Your task to perform on an android device: make emails show in primary in the gmail app Image 0: 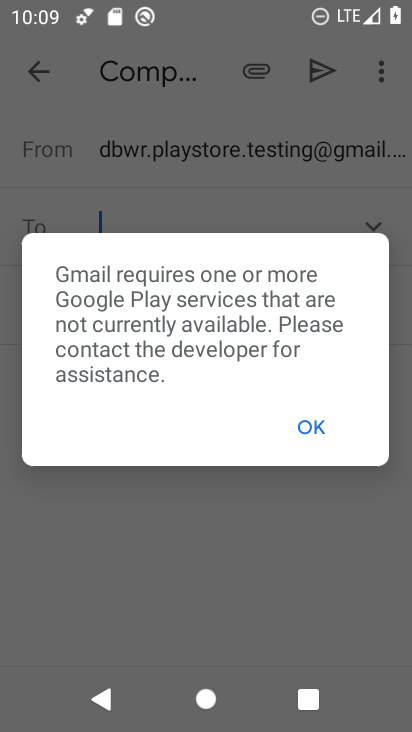
Step 0: press home button
Your task to perform on an android device: make emails show in primary in the gmail app Image 1: 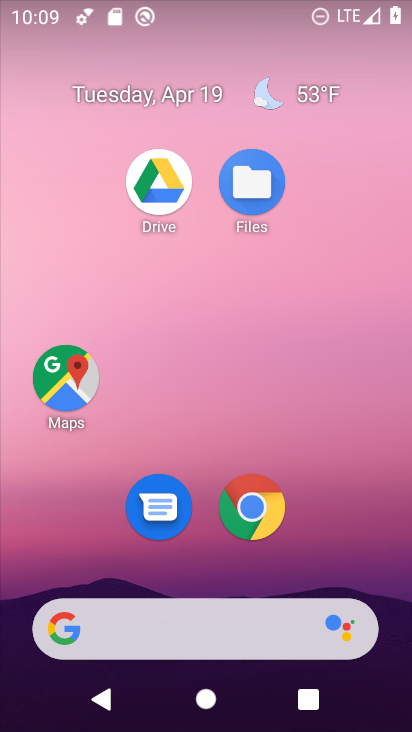
Step 1: drag from (342, 532) to (378, 156)
Your task to perform on an android device: make emails show in primary in the gmail app Image 2: 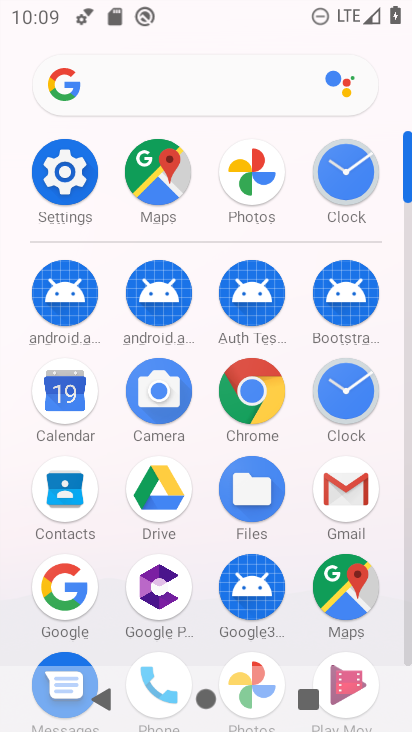
Step 2: click (330, 493)
Your task to perform on an android device: make emails show in primary in the gmail app Image 3: 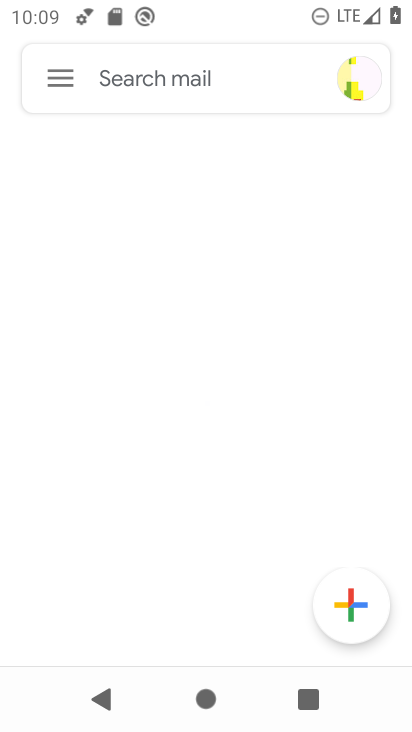
Step 3: click (59, 74)
Your task to perform on an android device: make emails show in primary in the gmail app Image 4: 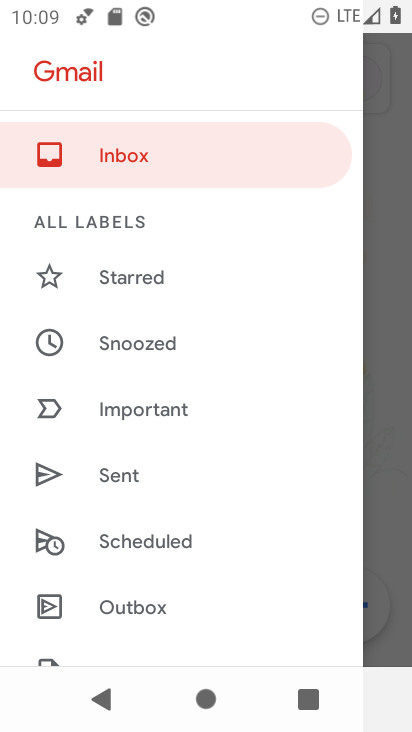
Step 4: drag from (157, 564) to (210, 164)
Your task to perform on an android device: make emails show in primary in the gmail app Image 5: 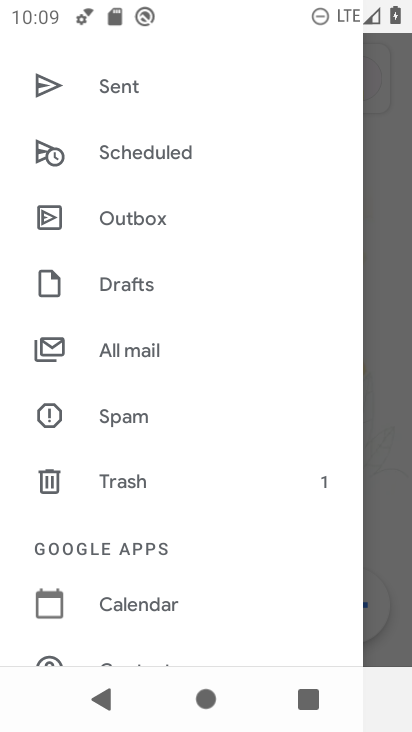
Step 5: drag from (217, 530) to (214, 176)
Your task to perform on an android device: make emails show in primary in the gmail app Image 6: 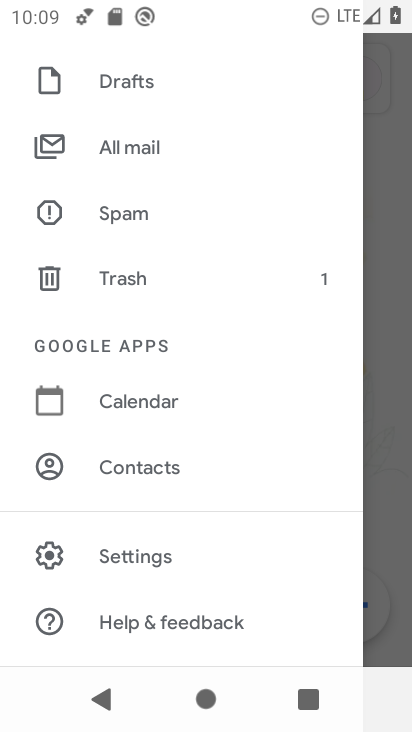
Step 6: click (151, 547)
Your task to perform on an android device: make emails show in primary in the gmail app Image 7: 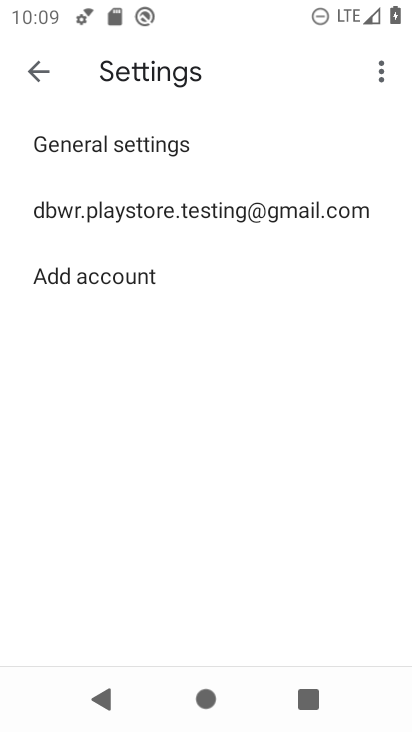
Step 7: click (204, 195)
Your task to perform on an android device: make emails show in primary in the gmail app Image 8: 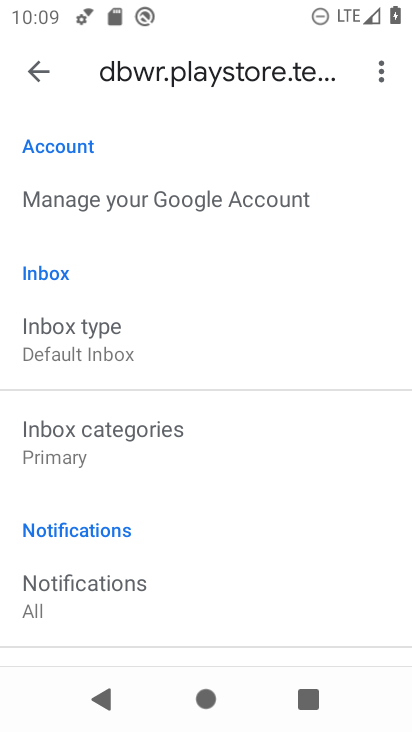
Step 8: task complete